Your task to perform on an android device: check android version Image 0: 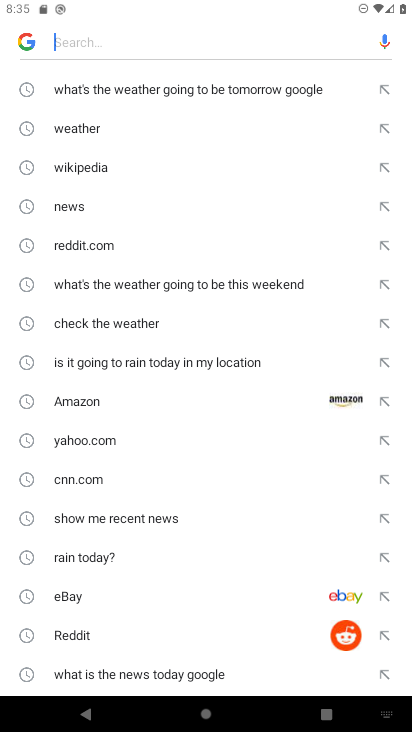
Step 0: press home button
Your task to perform on an android device: check android version Image 1: 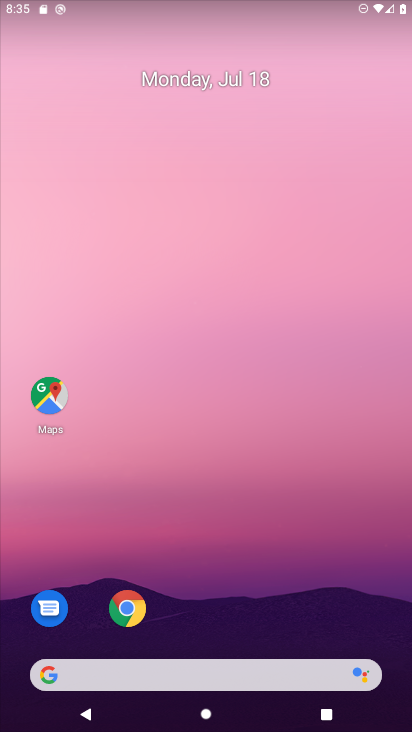
Step 1: drag from (269, 574) to (270, 134)
Your task to perform on an android device: check android version Image 2: 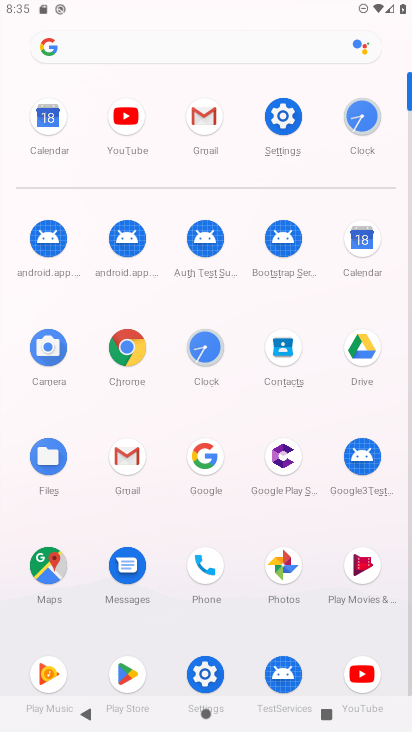
Step 2: click (280, 116)
Your task to perform on an android device: check android version Image 3: 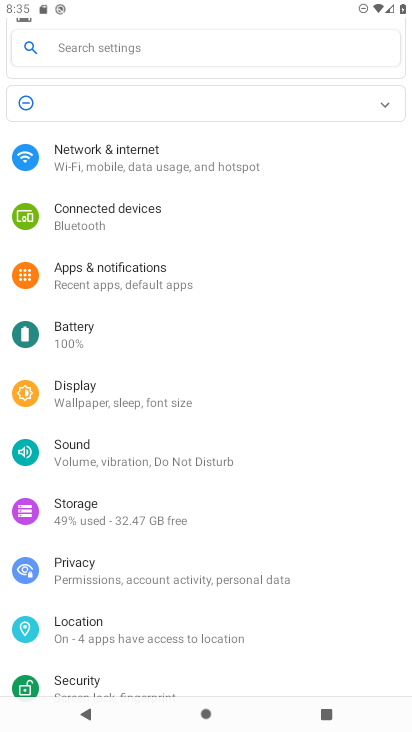
Step 3: drag from (227, 611) to (252, 222)
Your task to perform on an android device: check android version Image 4: 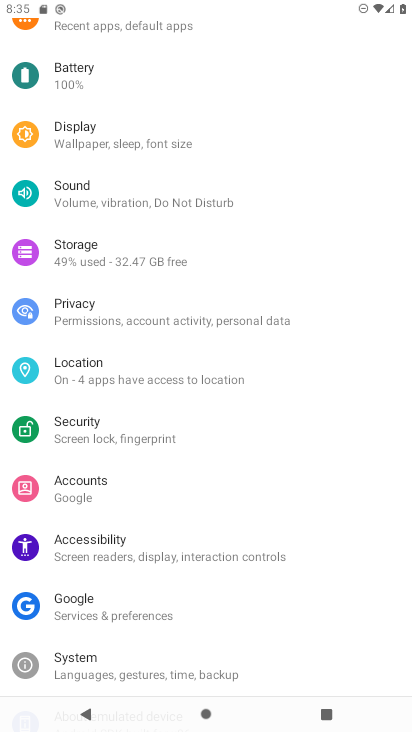
Step 4: drag from (192, 672) to (231, 137)
Your task to perform on an android device: check android version Image 5: 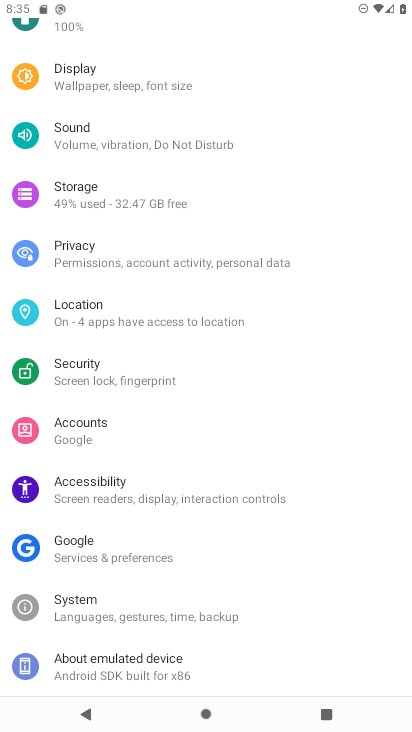
Step 5: click (112, 672)
Your task to perform on an android device: check android version Image 6: 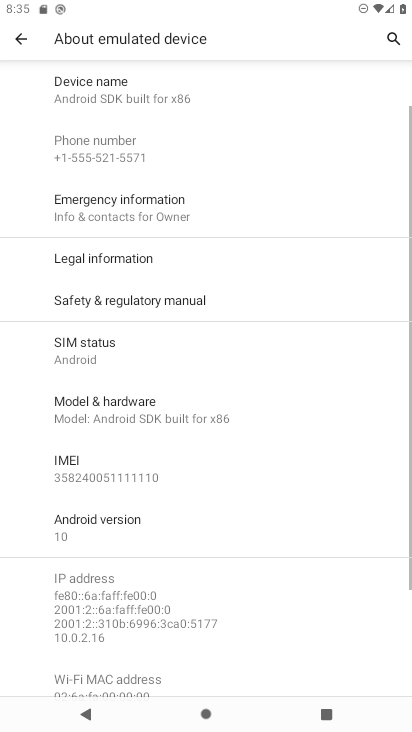
Step 6: click (197, 526)
Your task to perform on an android device: check android version Image 7: 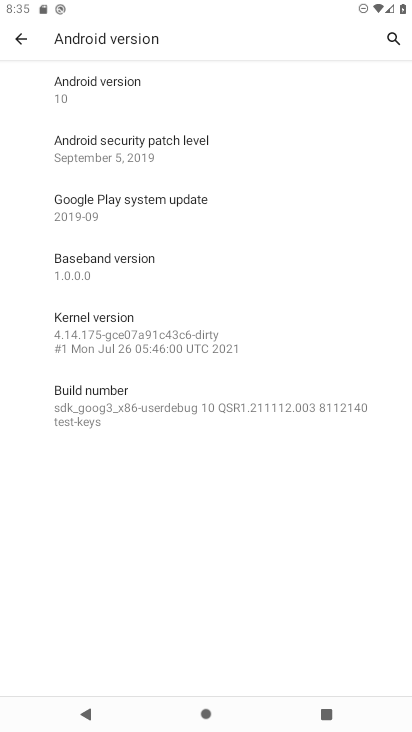
Step 7: click (254, 99)
Your task to perform on an android device: check android version Image 8: 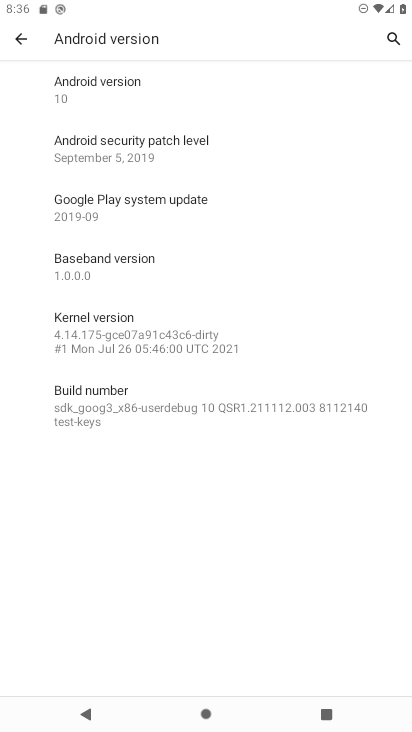
Step 8: task complete